Your task to perform on an android device: create a new album in the google photos Image 0: 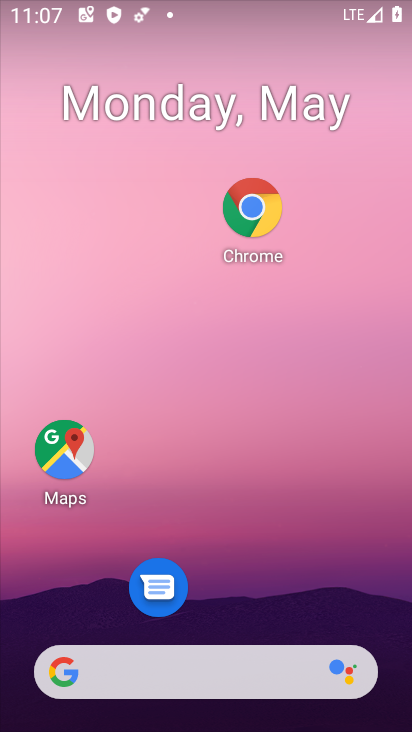
Step 0: drag from (304, 615) to (230, 208)
Your task to perform on an android device: create a new album in the google photos Image 1: 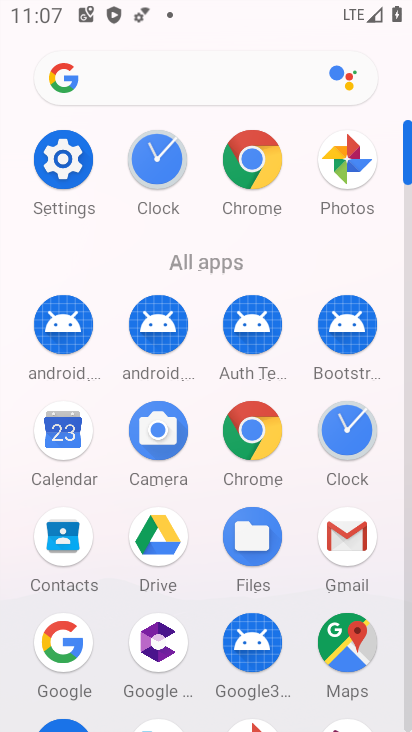
Step 1: click (345, 168)
Your task to perform on an android device: create a new album in the google photos Image 2: 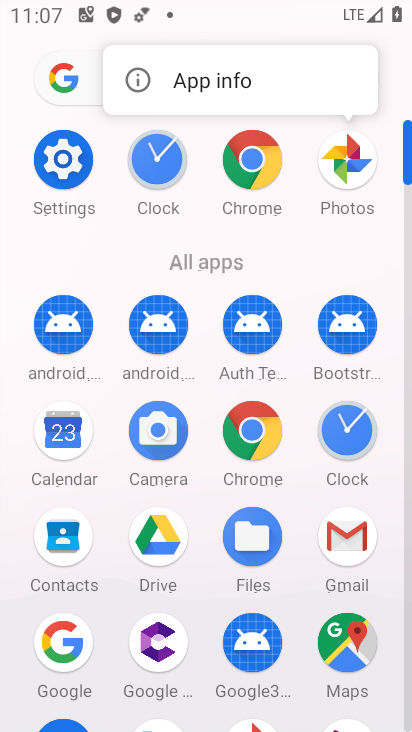
Step 2: click (349, 167)
Your task to perform on an android device: create a new album in the google photos Image 3: 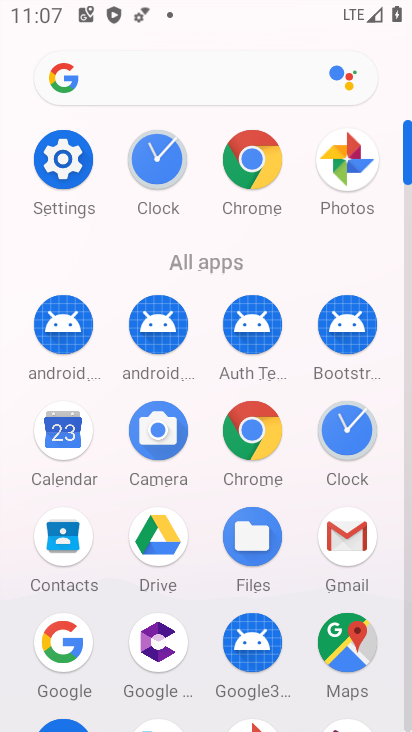
Step 3: click (349, 167)
Your task to perform on an android device: create a new album in the google photos Image 4: 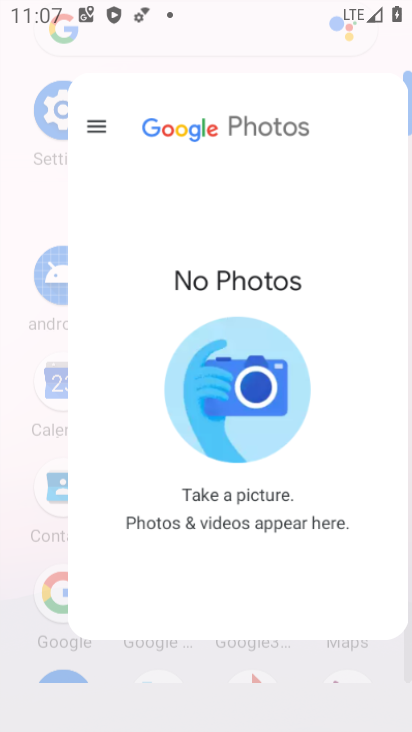
Step 4: click (349, 167)
Your task to perform on an android device: create a new album in the google photos Image 5: 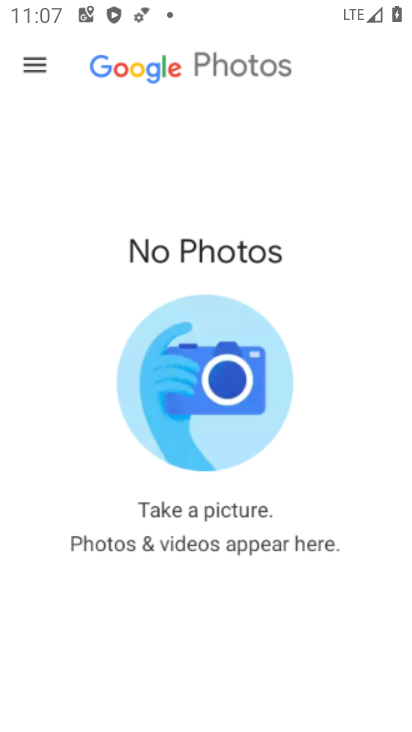
Step 5: click (349, 167)
Your task to perform on an android device: create a new album in the google photos Image 6: 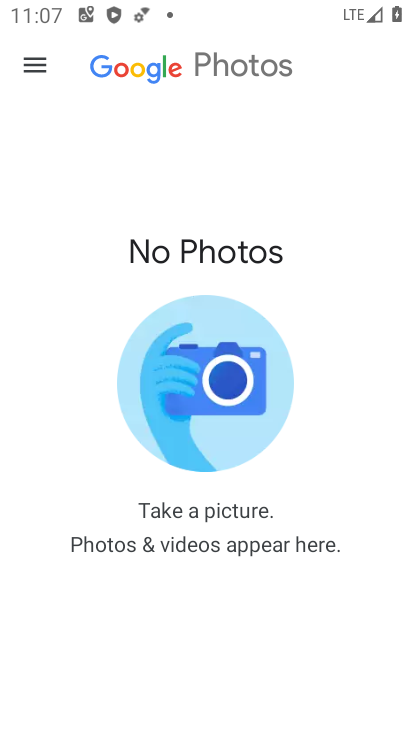
Step 6: click (23, 67)
Your task to perform on an android device: create a new album in the google photos Image 7: 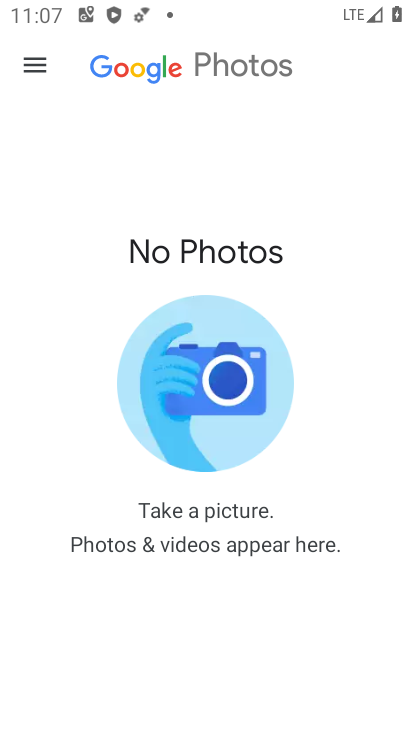
Step 7: task complete